Your task to perform on an android device: toggle pop-ups in chrome Image 0: 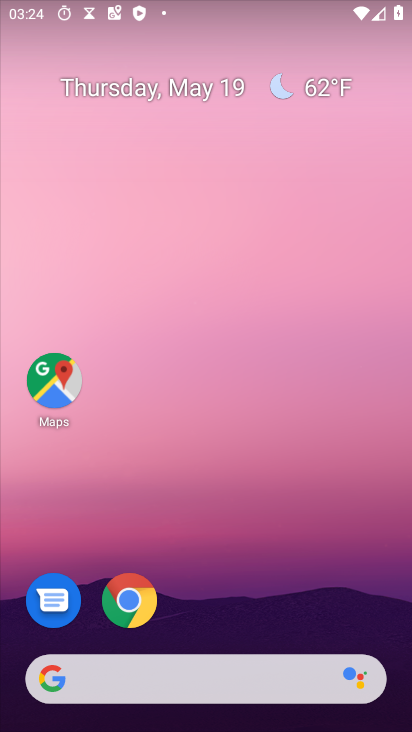
Step 0: click (149, 599)
Your task to perform on an android device: toggle pop-ups in chrome Image 1: 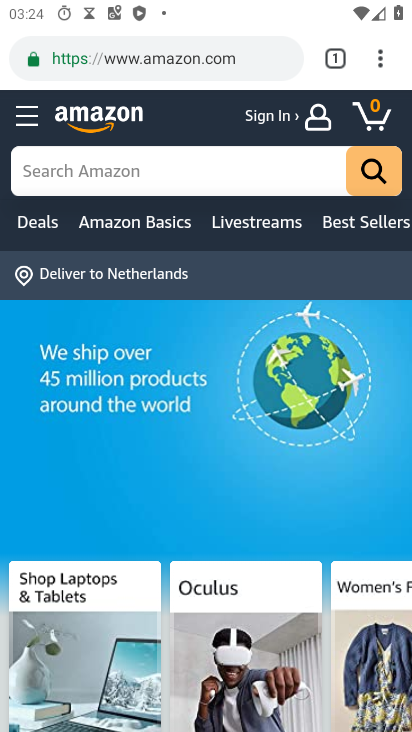
Step 1: click (371, 56)
Your task to perform on an android device: toggle pop-ups in chrome Image 2: 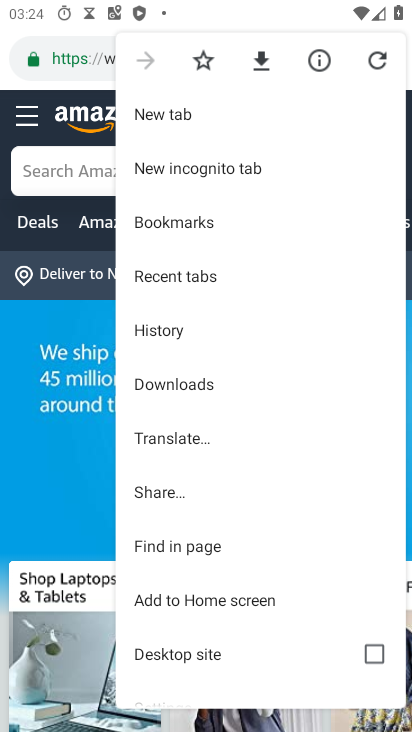
Step 2: drag from (148, 655) to (315, 230)
Your task to perform on an android device: toggle pop-ups in chrome Image 3: 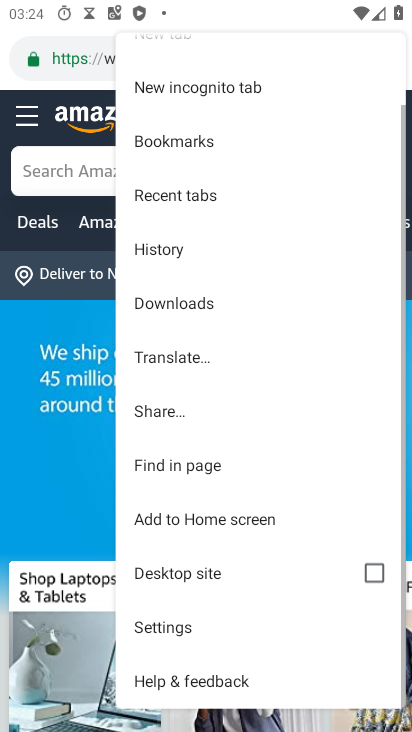
Step 3: click (196, 635)
Your task to perform on an android device: toggle pop-ups in chrome Image 4: 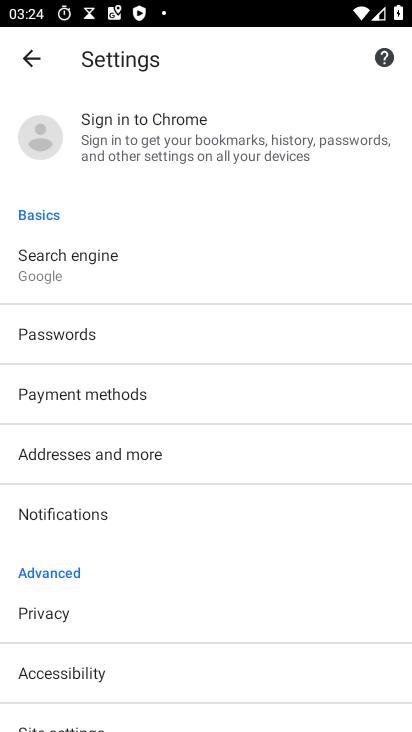
Step 4: drag from (34, 704) to (245, 231)
Your task to perform on an android device: toggle pop-ups in chrome Image 5: 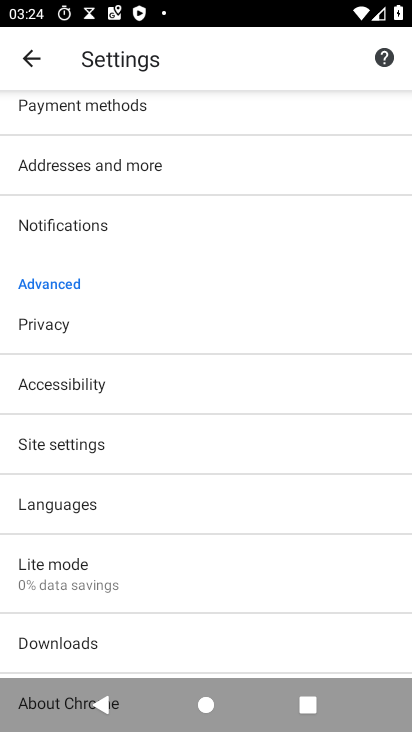
Step 5: click (83, 438)
Your task to perform on an android device: toggle pop-ups in chrome Image 6: 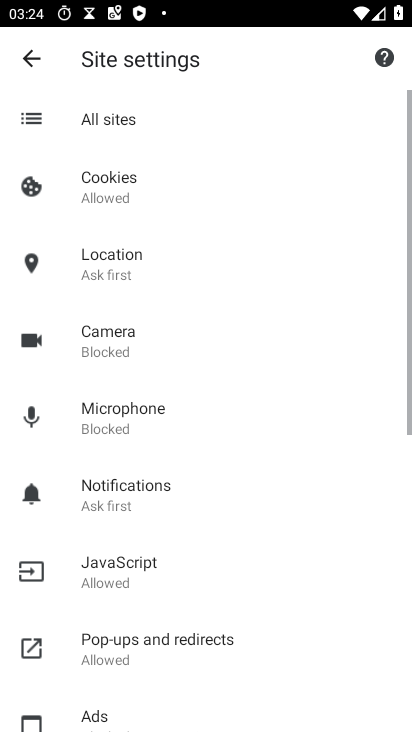
Step 6: drag from (3, 589) to (263, 202)
Your task to perform on an android device: toggle pop-ups in chrome Image 7: 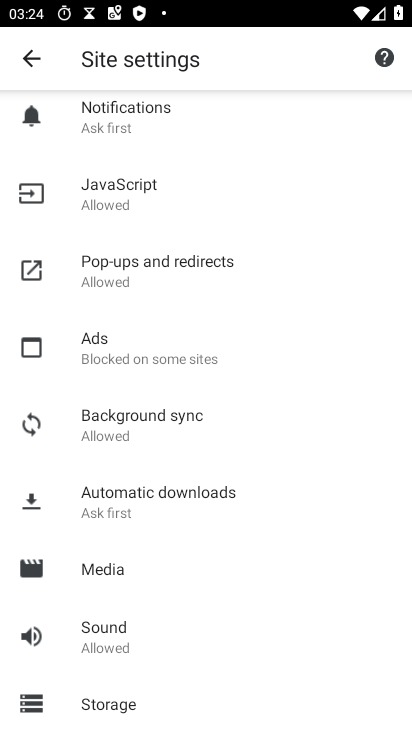
Step 7: click (161, 282)
Your task to perform on an android device: toggle pop-ups in chrome Image 8: 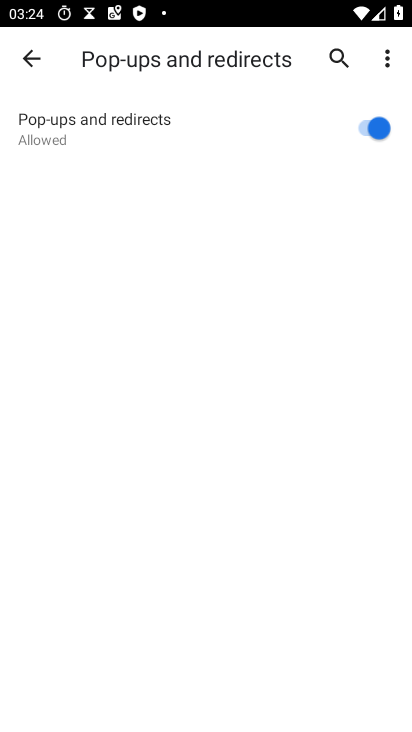
Step 8: click (388, 131)
Your task to perform on an android device: toggle pop-ups in chrome Image 9: 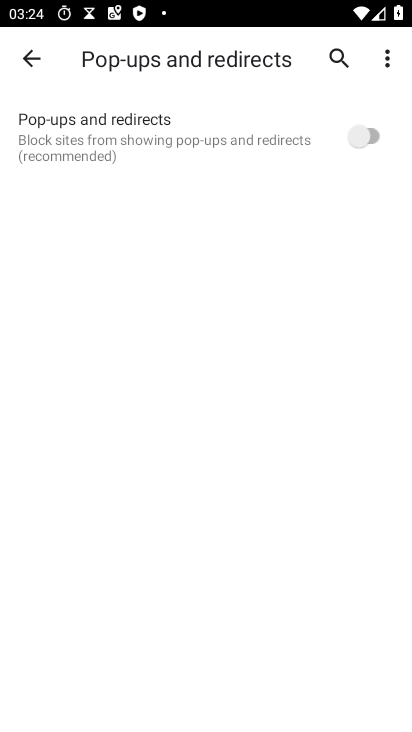
Step 9: task complete